Your task to perform on an android device: Open Google Maps Image 0: 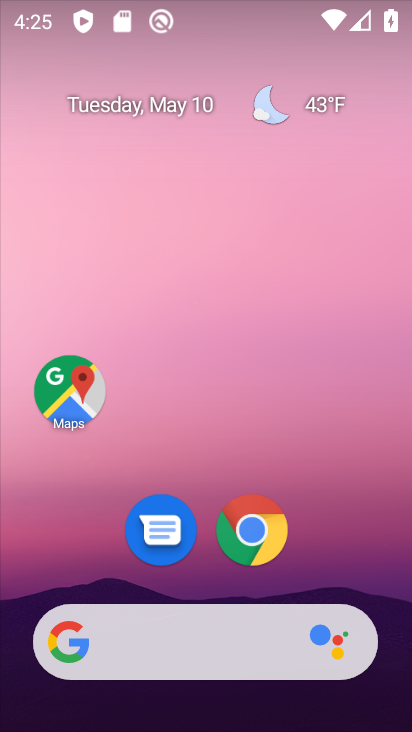
Step 0: click (81, 399)
Your task to perform on an android device: Open Google Maps Image 1: 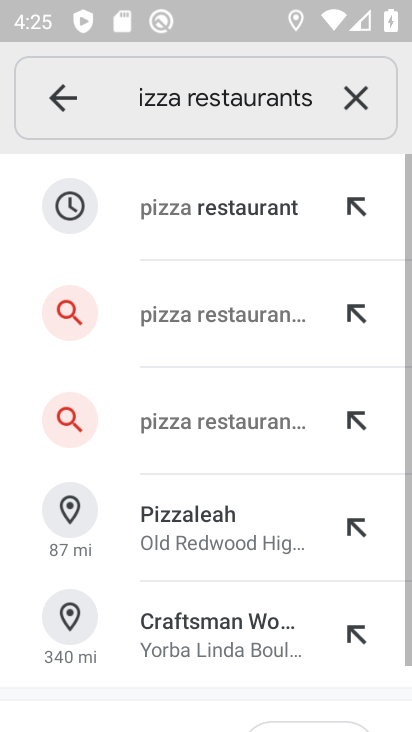
Step 1: task complete